Your task to perform on an android device: Show me popular videos on Youtube Image 0: 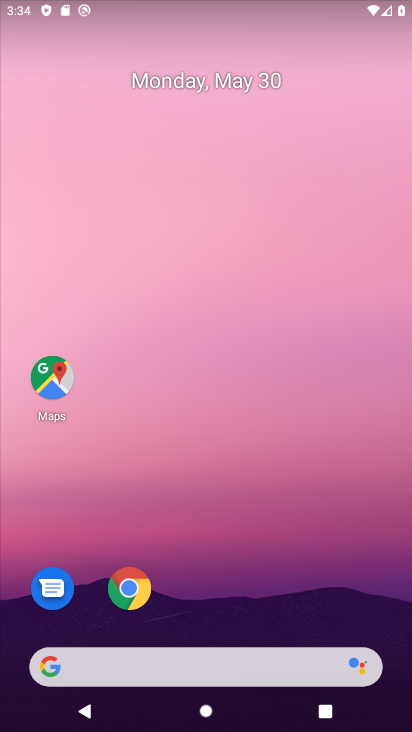
Step 0: drag from (376, 618) to (315, 48)
Your task to perform on an android device: Show me popular videos on Youtube Image 1: 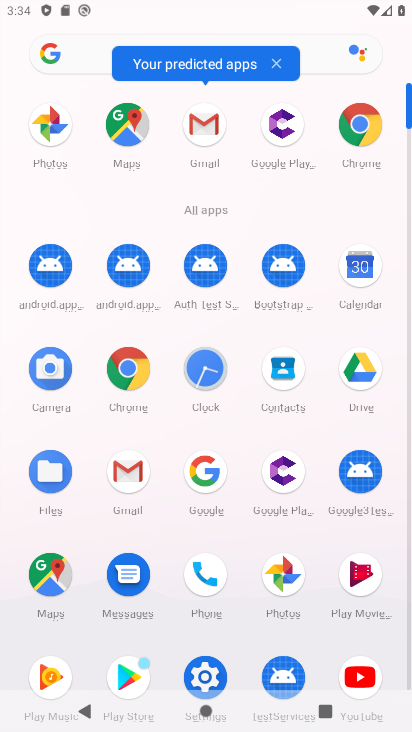
Step 1: click (407, 670)
Your task to perform on an android device: Show me popular videos on Youtube Image 2: 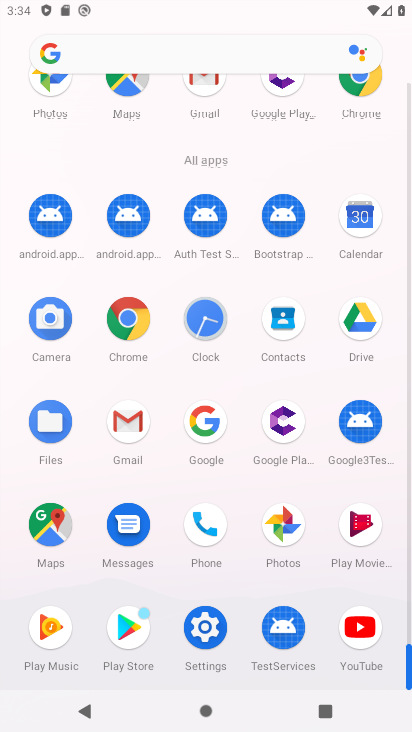
Step 2: click (359, 625)
Your task to perform on an android device: Show me popular videos on Youtube Image 3: 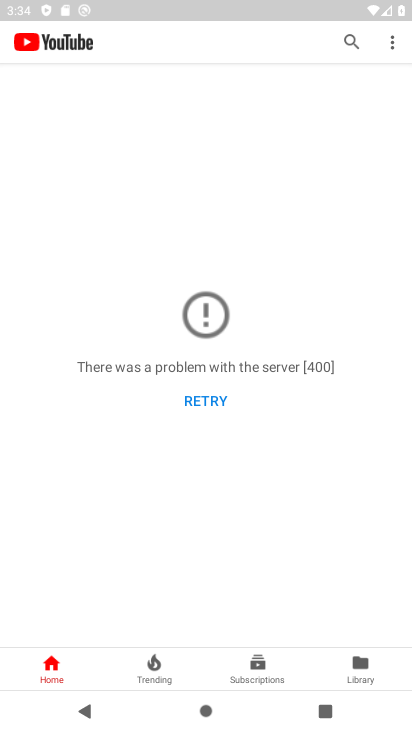
Step 3: click (161, 663)
Your task to perform on an android device: Show me popular videos on Youtube Image 4: 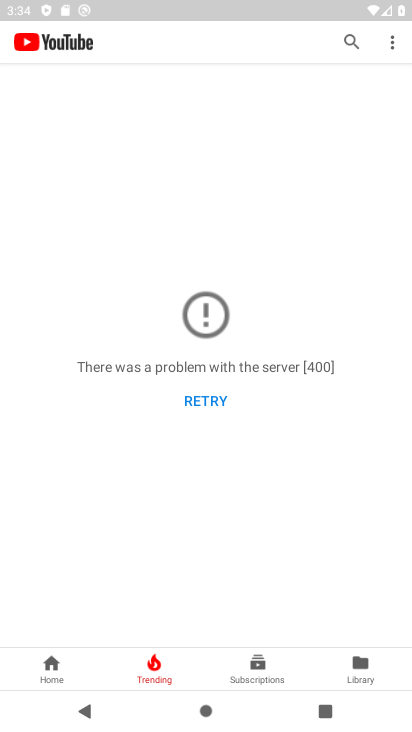
Step 4: click (189, 396)
Your task to perform on an android device: Show me popular videos on Youtube Image 5: 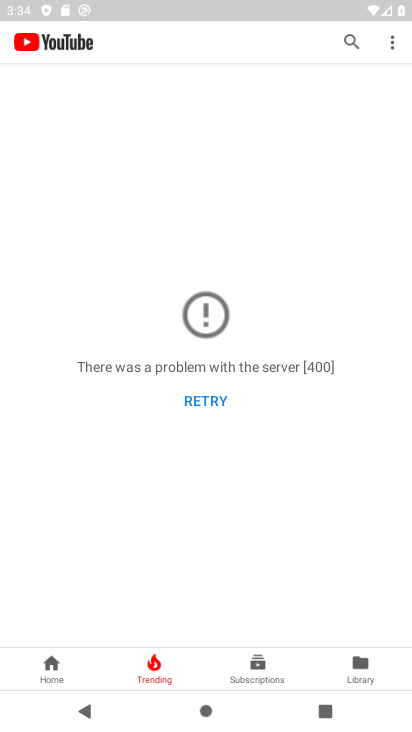
Step 5: task complete